Your task to perform on an android device: Open the stopwatch Image 0: 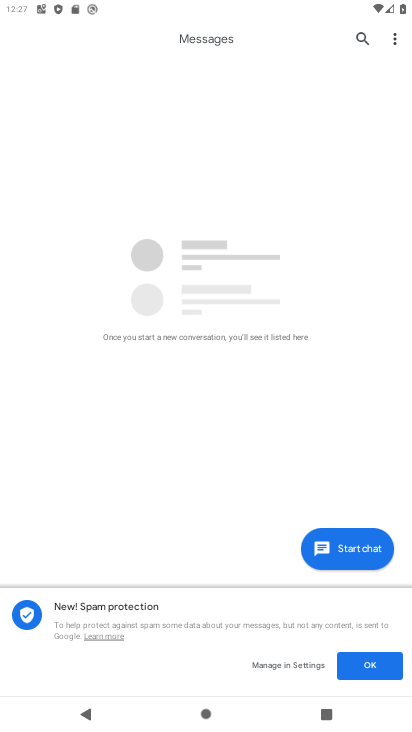
Step 0: press home button
Your task to perform on an android device: Open the stopwatch Image 1: 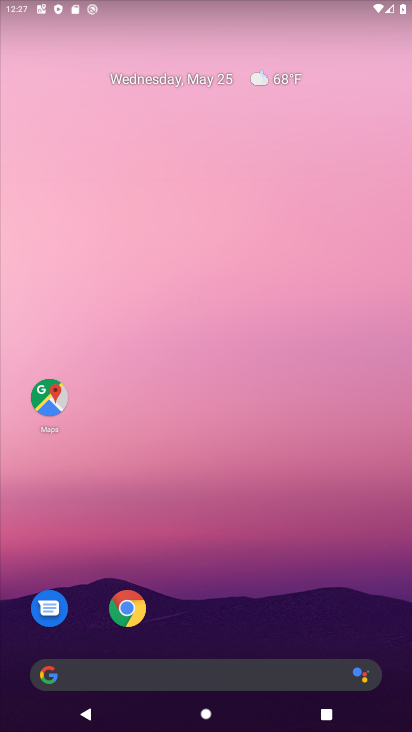
Step 1: drag from (351, 514) to (335, 3)
Your task to perform on an android device: Open the stopwatch Image 2: 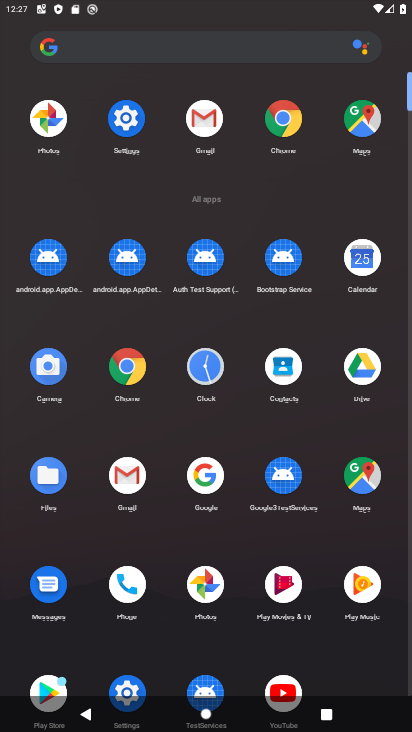
Step 2: click (208, 382)
Your task to perform on an android device: Open the stopwatch Image 3: 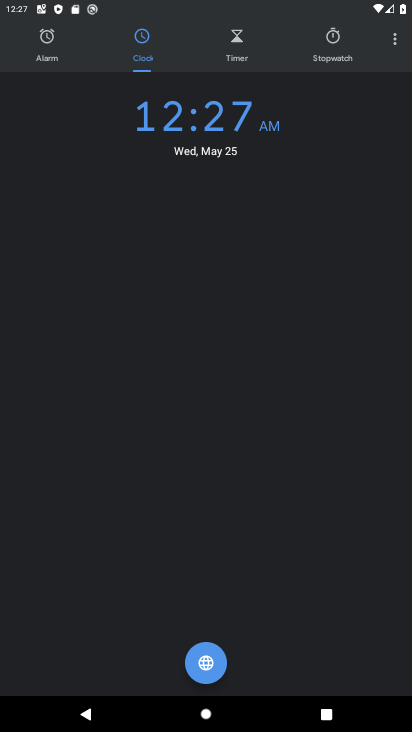
Step 3: click (333, 43)
Your task to perform on an android device: Open the stopwatch Image 4: 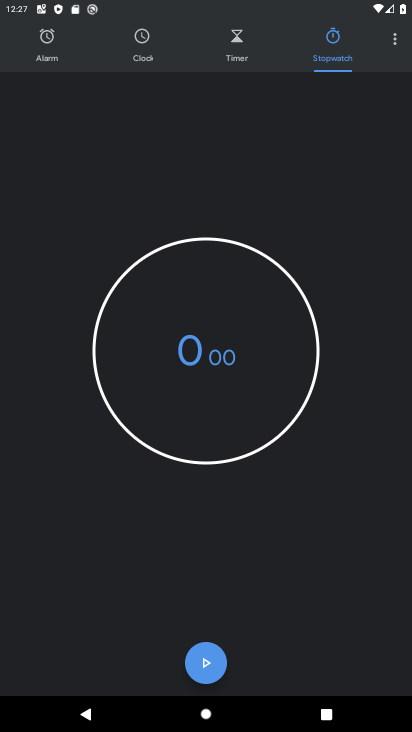
Step 4: task complete